Your task to perform on an android device: toggle location history Image 0: 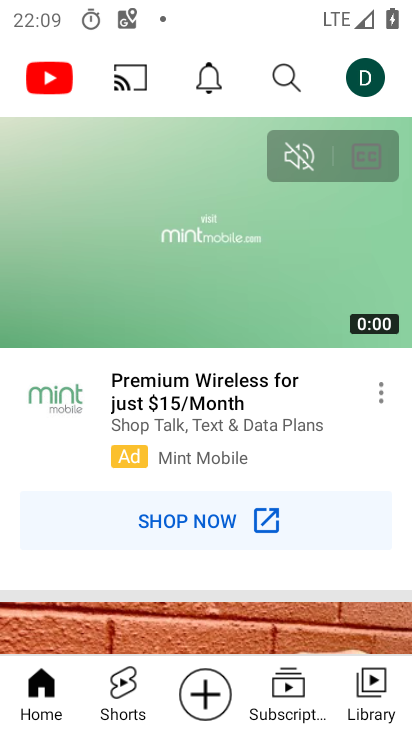
Step 0: press home button
Your task to perform on an android device: toggle location history Image 1: 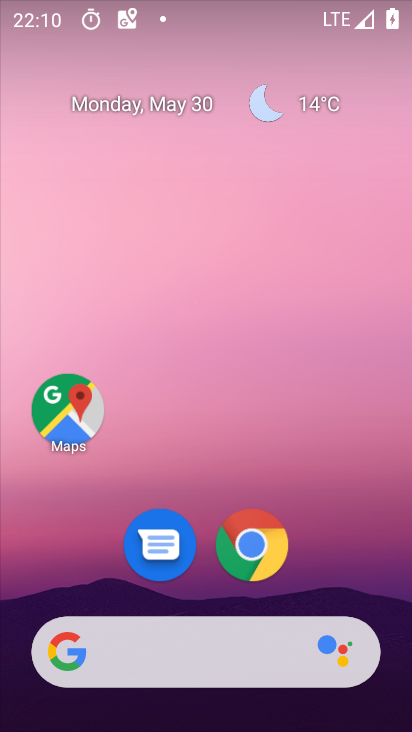
Step 1: drag from (336, 556) to (346, 1)
Your task to perform on an android device: toggle location history Image 2: 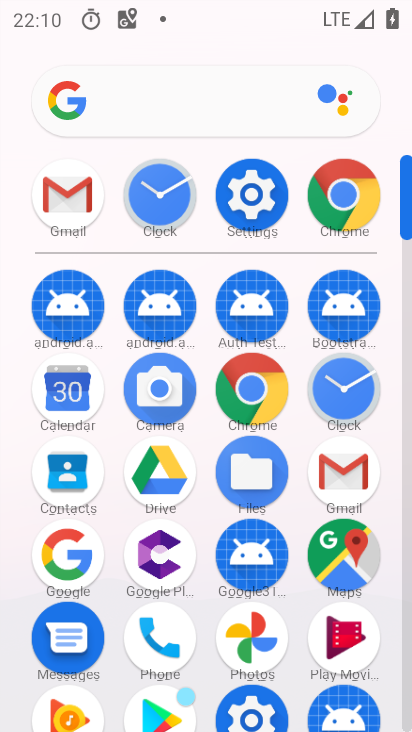
Step 2: click (253, 203)
Your task to perform on an android device: toggle location history Image 3: 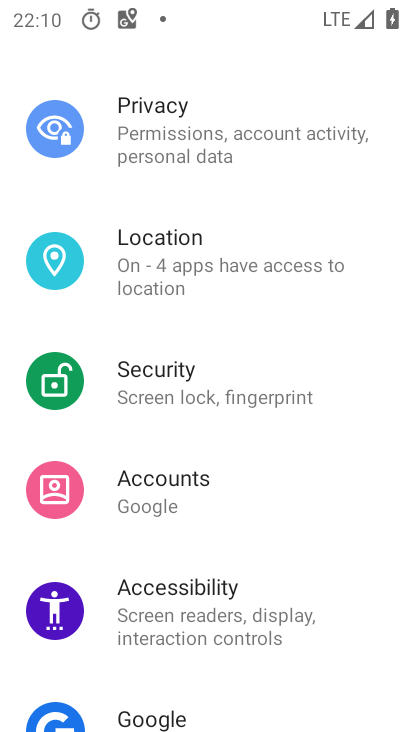
Step 3: click (229, 262)
Your task to perform on an android device: toggle location history Image 4: 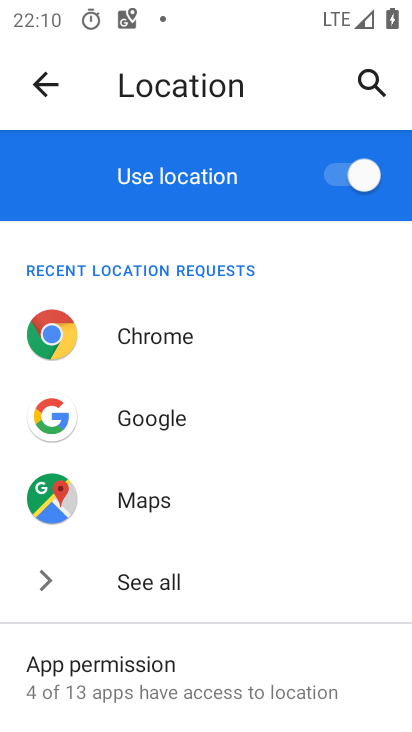
Step 4: drag from (318, 606) to (370, 172)
Your task to perform on an android device: toggle location history Image 5: 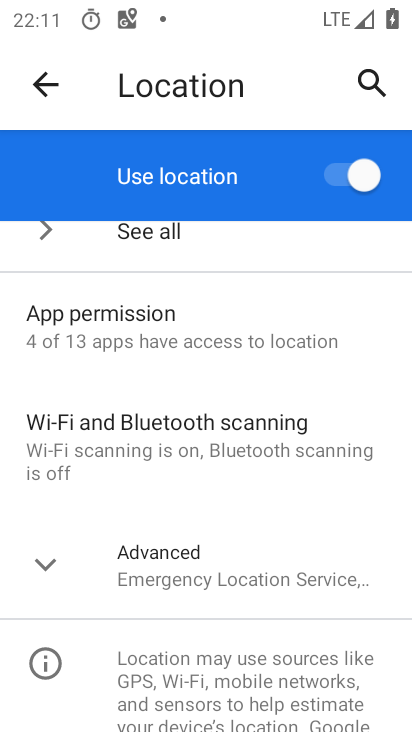
Step 5: click (248, 577)
Your task to perform on an android device: toggle location history Image 6: 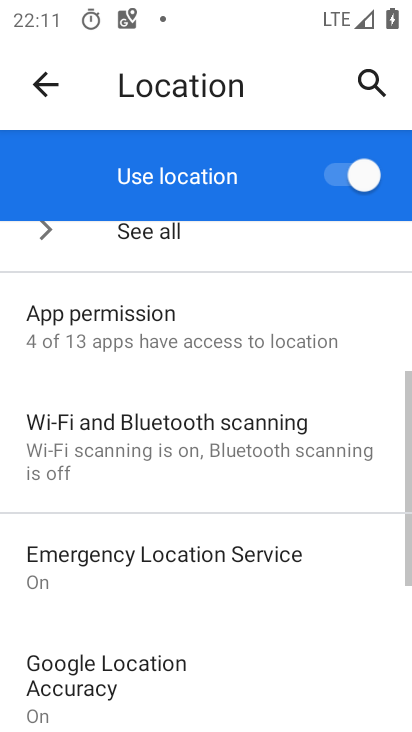
Step 6: drag from (314, 657) to (306, 326)
Your task to perform on an android device: toggle location history Image 7: 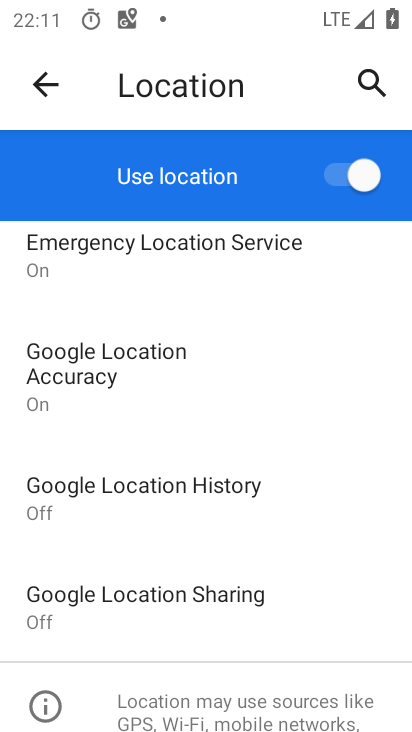
Step 7: click (200, 488)
Your task to perform on an android device: toggle location history Image 8: 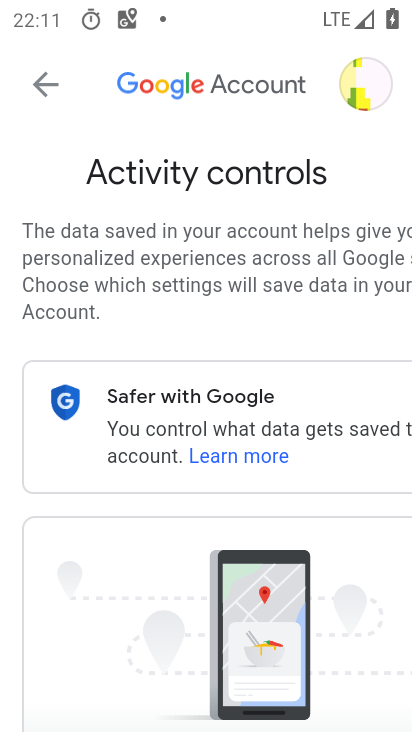
Step 8: drag from (326, 638) to (316, 470)
Your task to perform on an android device: toggle location history Image 9: 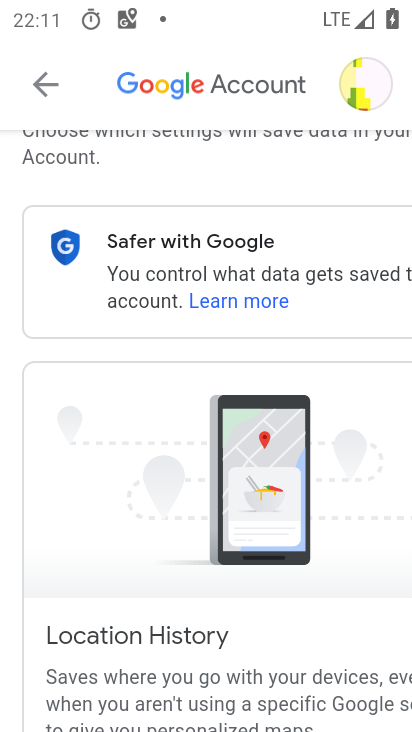
Step 9: drag from (269, 579) to (253, 173)
Your task to perform on an android device: toggle location history Image 10: 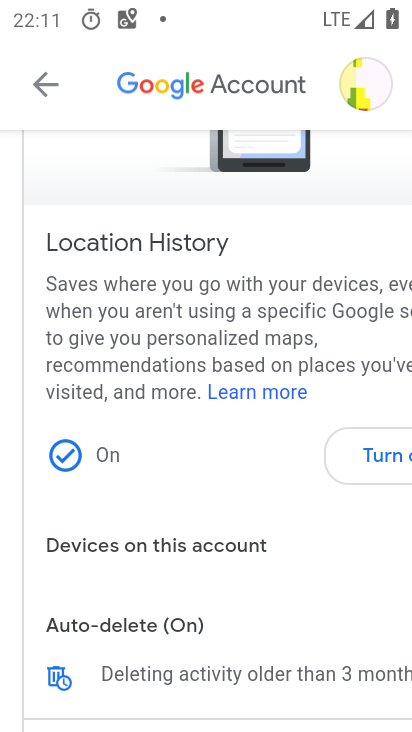
Step 10: click (370, 446)
Your task to perform on an android device: toggle location history Image 11: 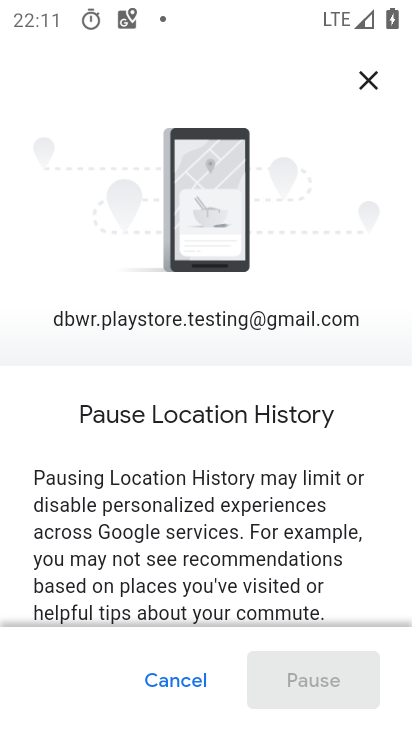
Step 11: drag from (268, 599) to (257, 266)
Your task to perform on an android device: toggle location history Image 12: 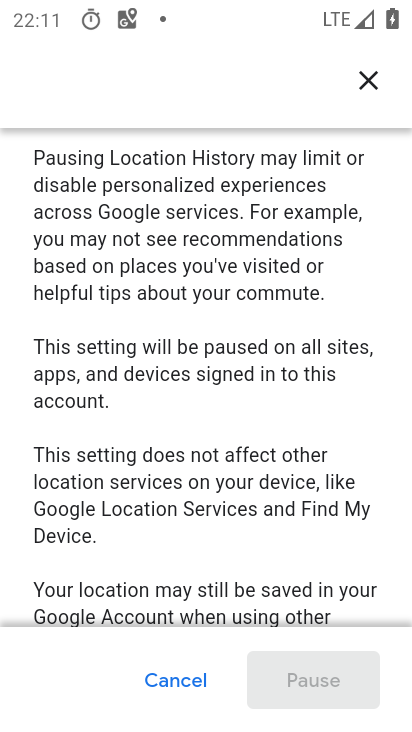
Step 12: drag from (260, 510) to (270, 130)
Your task to perform on an android device: toggle location history Image 13: 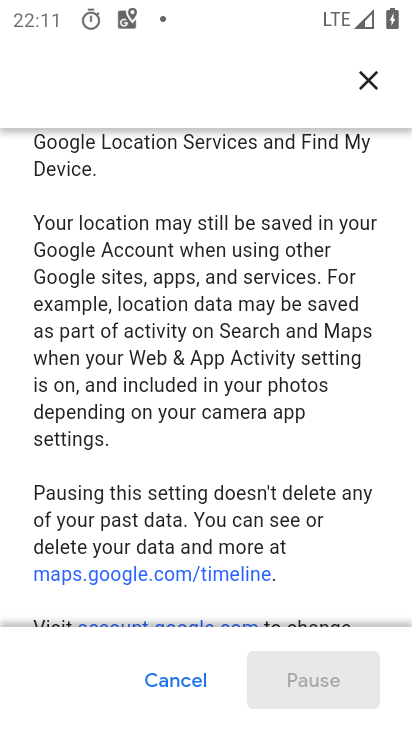
Step 13: drag from (282, 595) to (294, 446)
Your task to perform on an android device: toggle location history Image 14: 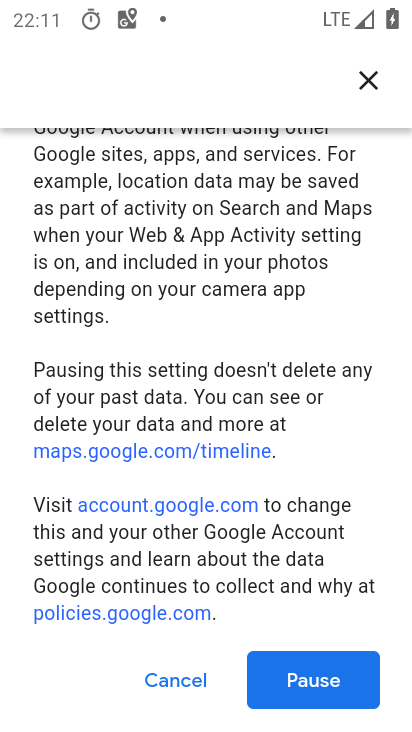
Step 14: click (309, 666)
Your task to perform on an android device: toggle location history Image 15: 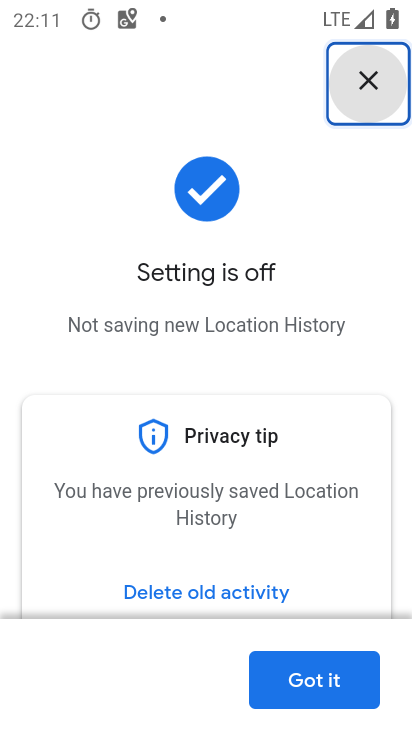
Step 15: click (309, 666)
Your task to perform on an android device: toggle location history Image 16: 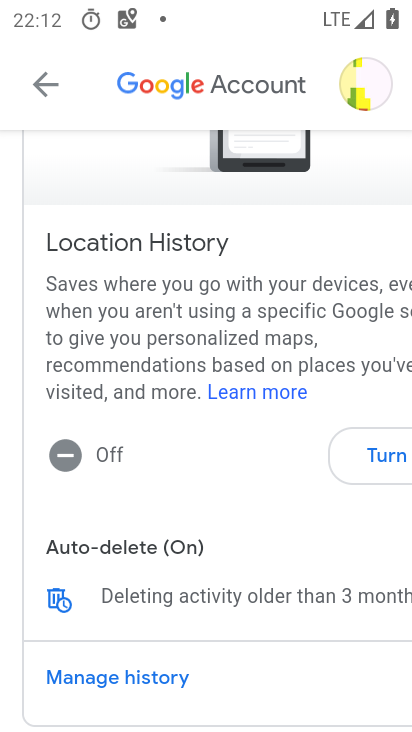
Step 16: task complete